Your task to perform on an android device: Search for pizza restaurants on Maps Image 0: 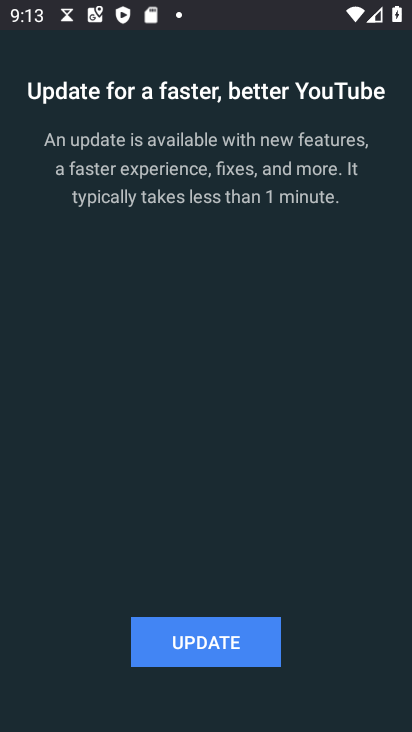
Step 0: press back button
Your task to perform on an android device: Search for pizza restaurants on Maps Image 1: 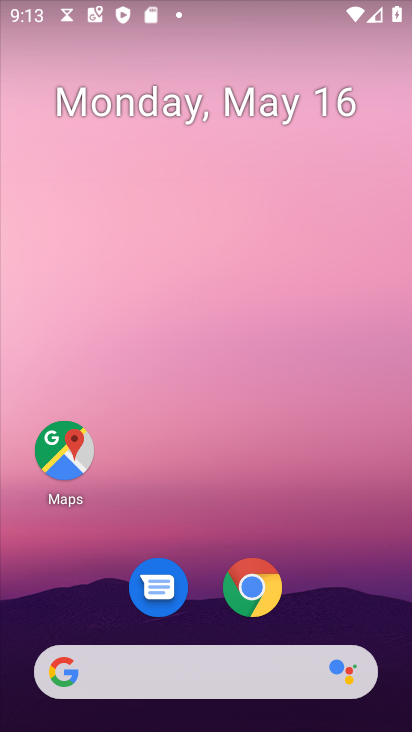
Step 1: click (38, 457)
Your task to perform on an android device: Search for pizza restaurants on Maps Image 2: 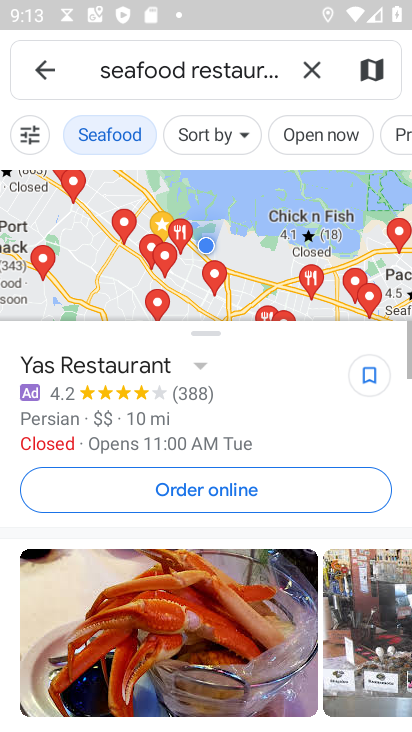
Step 2: click (305, 73)
Your task to perform on an android device: Search for pizza restaurants on Maps Image 3: 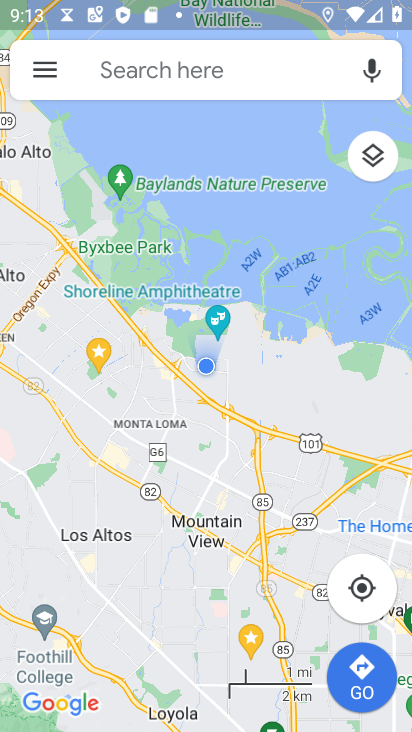
Step 3: click (214, 76)
Your task to perform on an android device: Search for pizza restaurants on Maps Image 4: 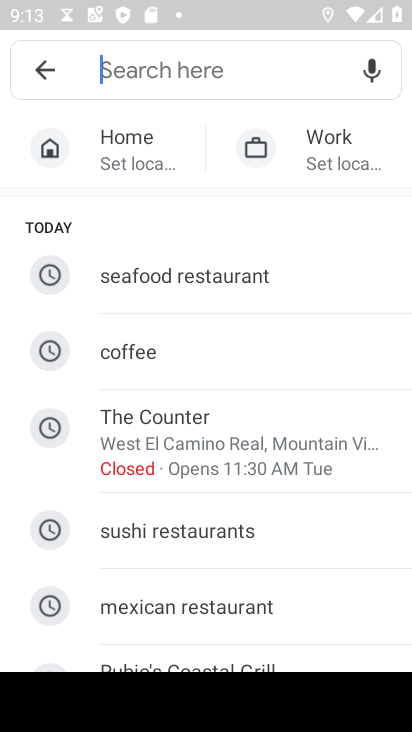
Step 4: type "pizza restaurants"
Your task to perform on an android device: Search for pizza restaurants on Maps Image 5: 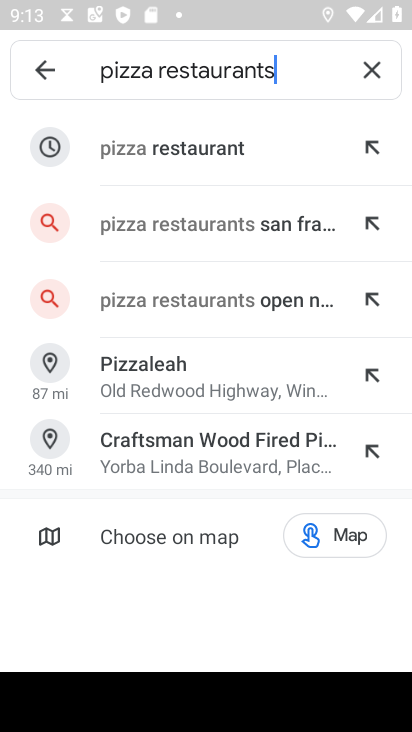
Step 5: click (194, 147)
Your task to perform on an android device: Search for pizza restaurants on Maps Image 6: 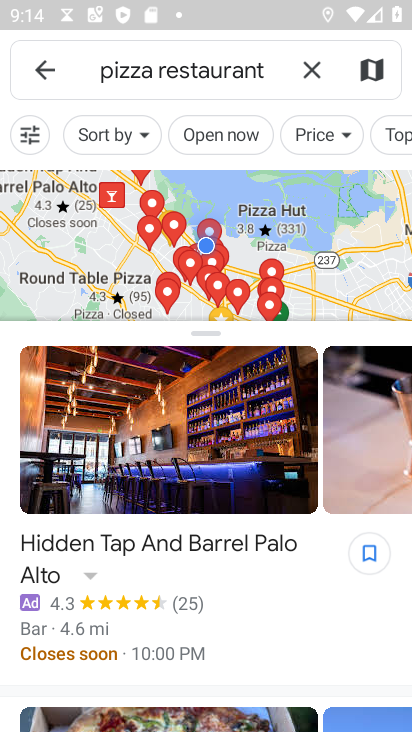
Step 6: task complete